Your task to perform on an android device: What's on my calendar today? Image 0: 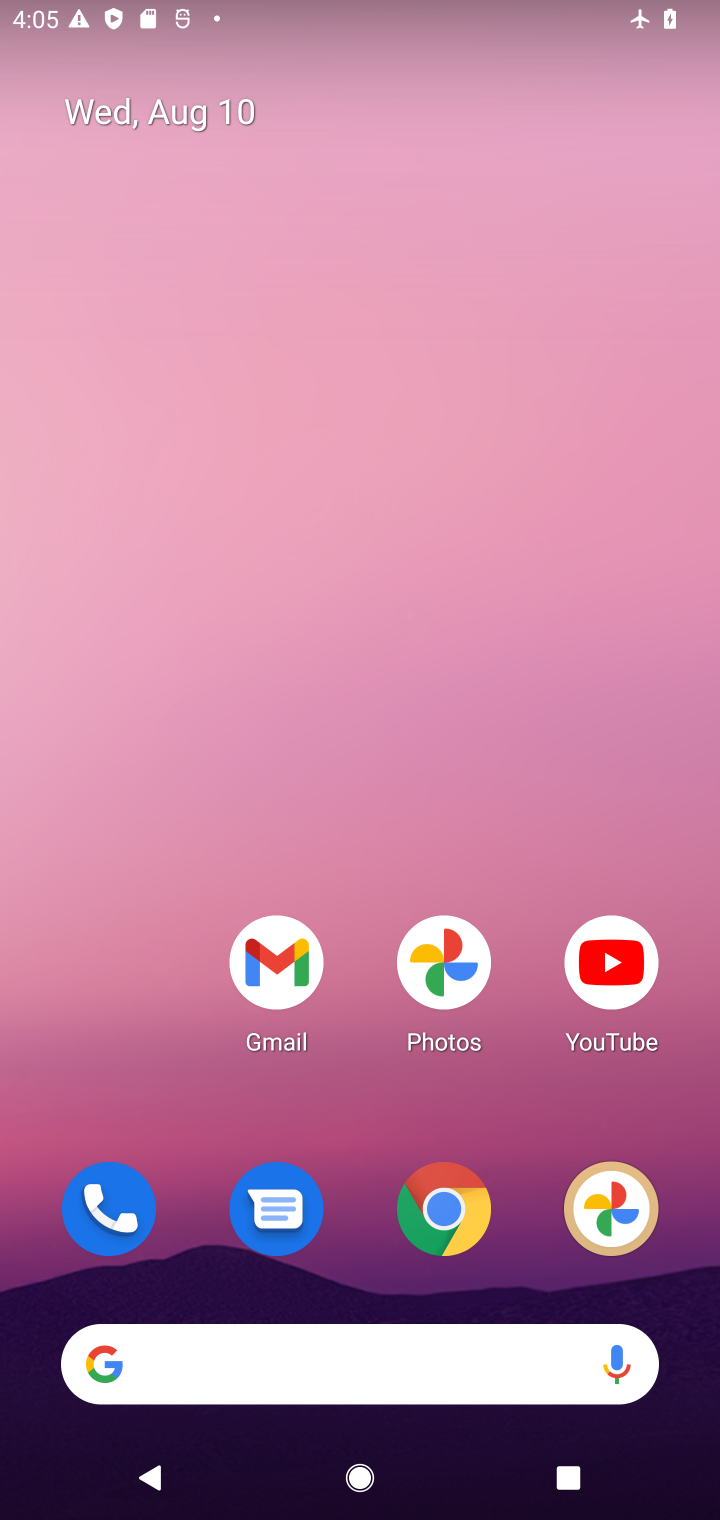
Step 0: click (146, 116)
Your task to perform on an android device: What's on my calendar today? Image 1: 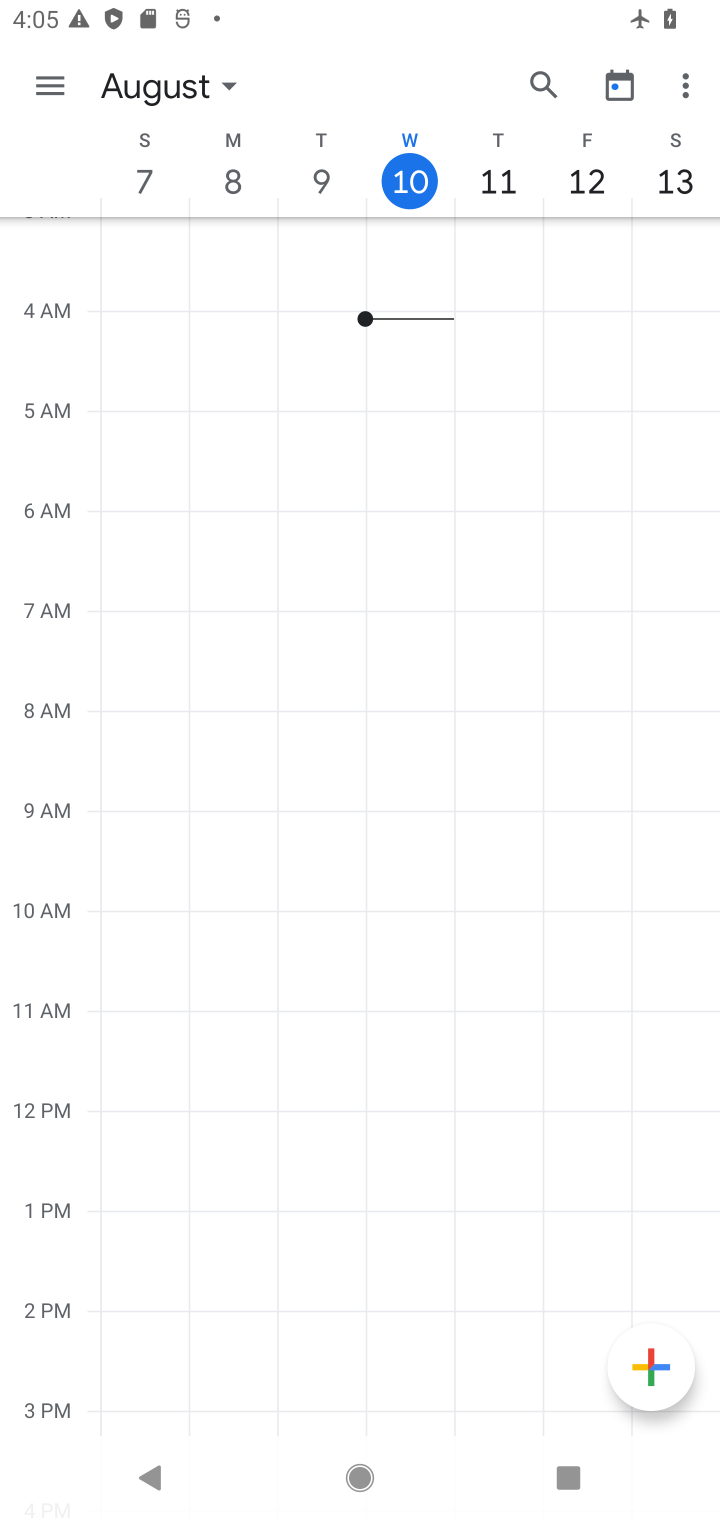
Step 1: task complete